Your task to perform on an android device: Clear the cart on walmart.com. Image 0: 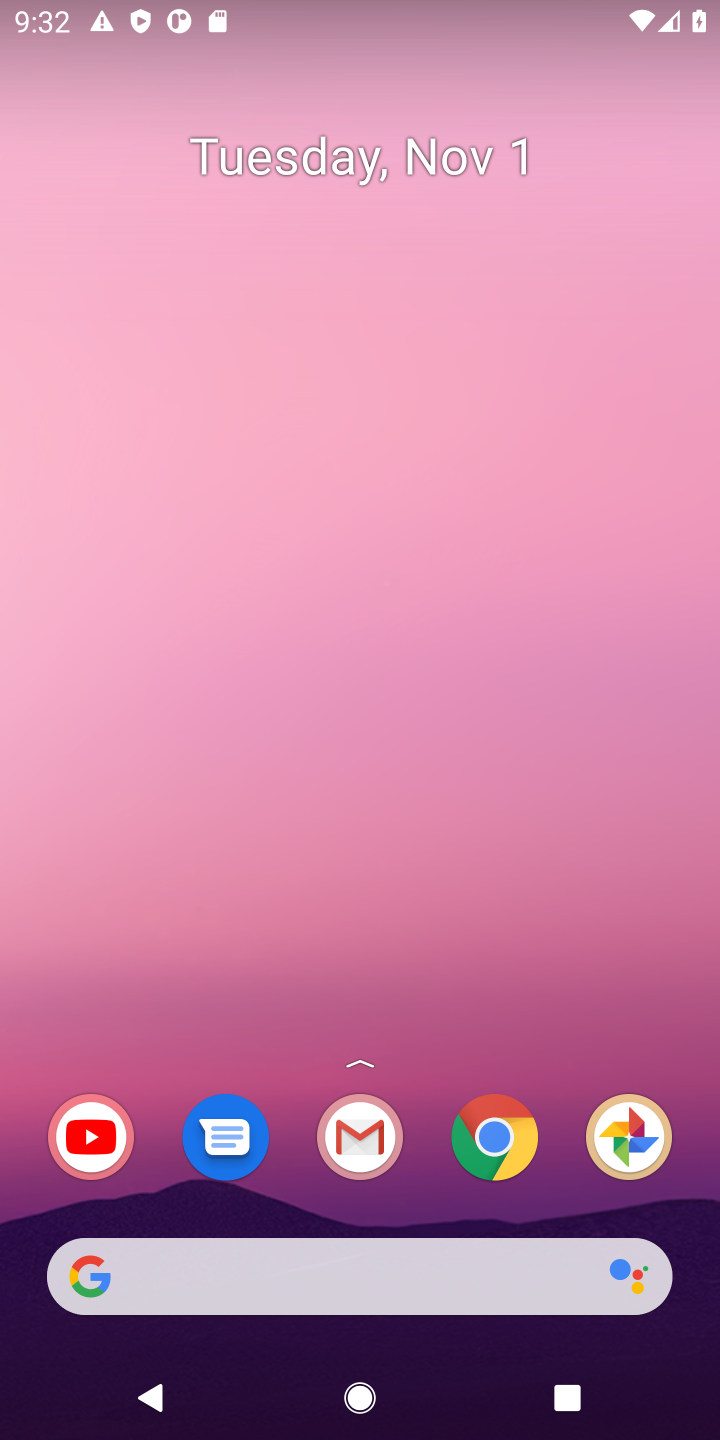
Step 0: click (476, 1121)
Your task to perform on an android device: Clear the cart on walmart.com. Image 1: 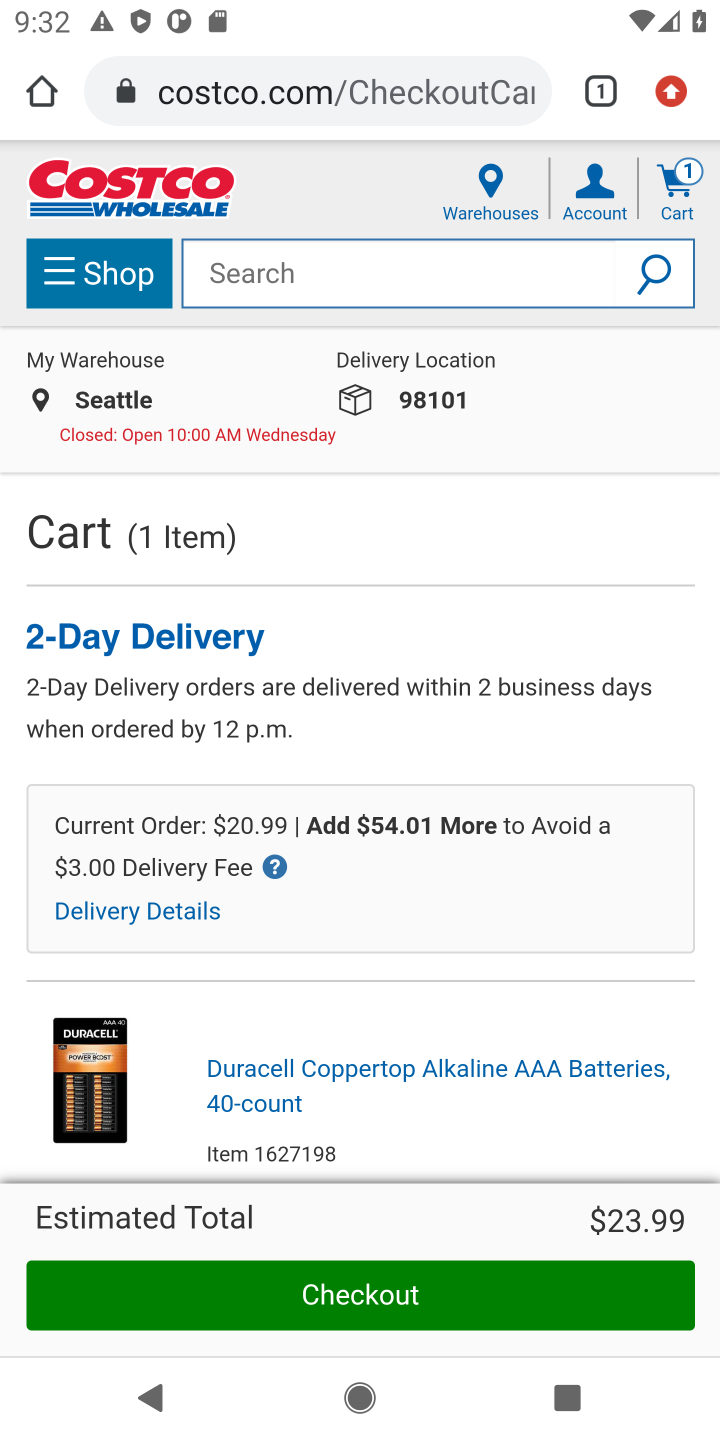
Step 1: click (416, 96)
Your task to perform on an android device: Clear the cart on walmart.com. Image 2: 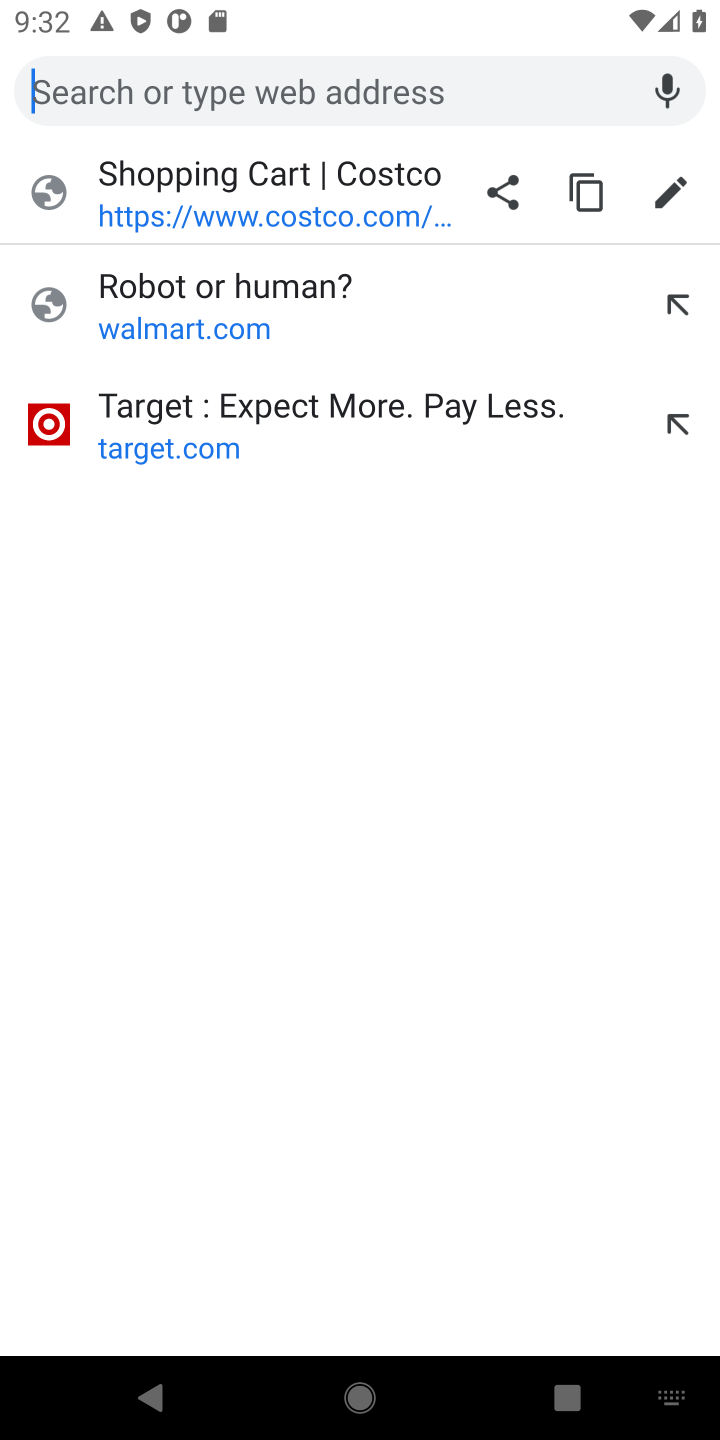
Step 2: type "walmart.com"
Your task to perform on an android device: Clear the cart on walmart.com. Image 3: 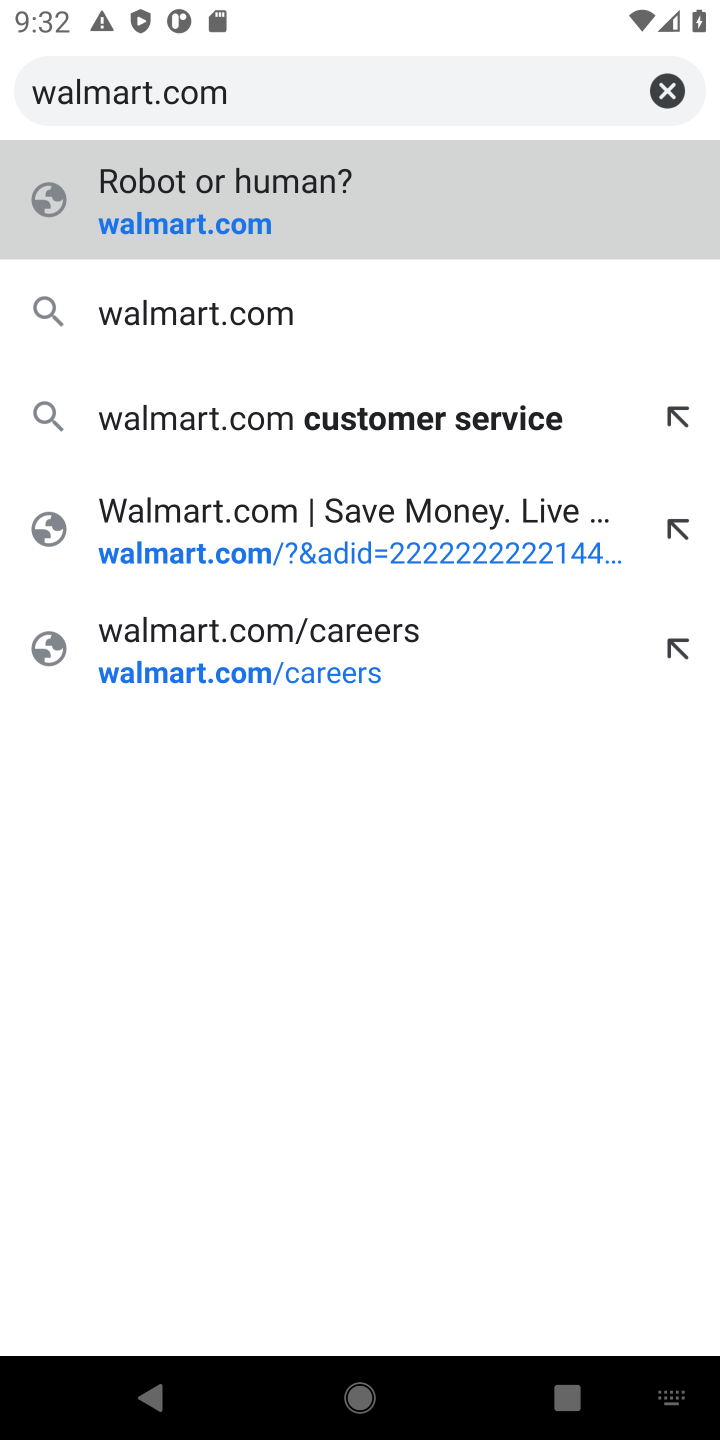
Step 3: press enter
Your task to perform on an android device: Clear the cart on walmart.com. Image 4: 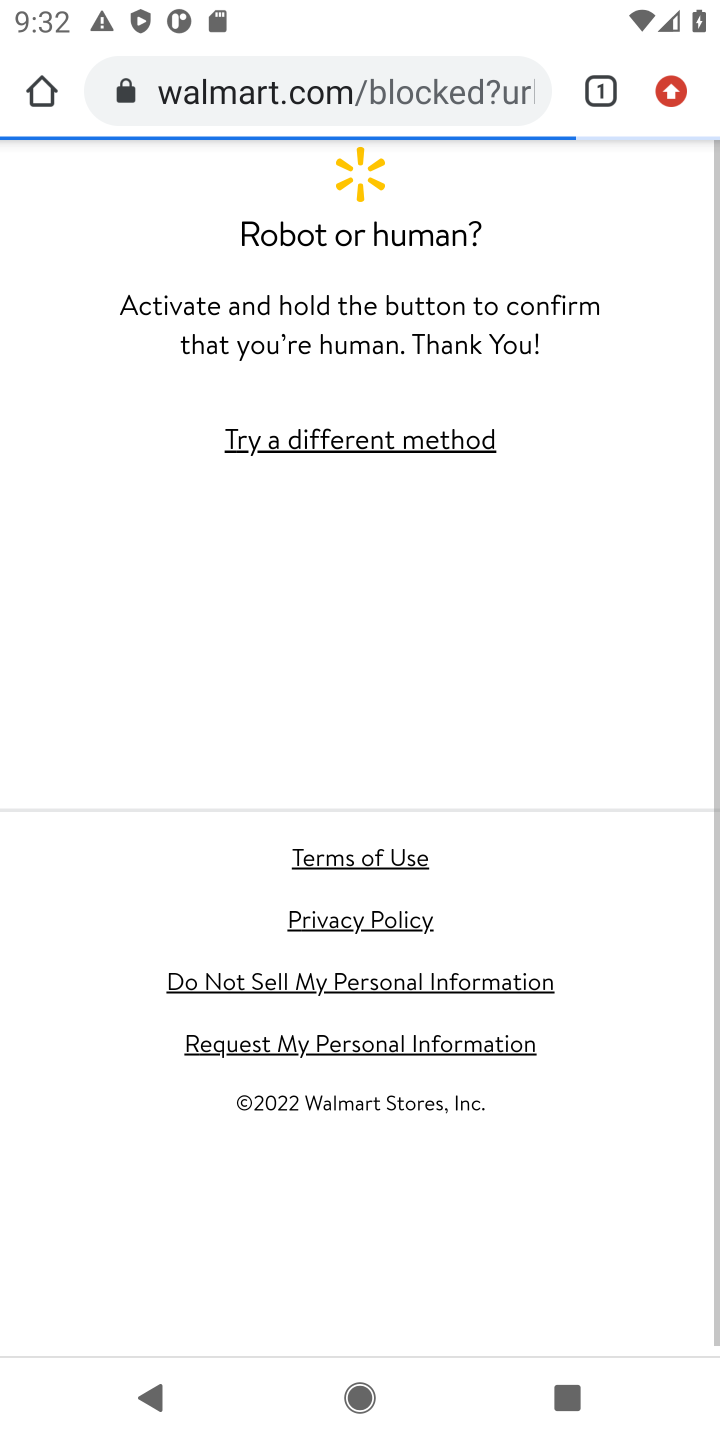
Step 4: click (399, 339)
Your task to perform on an android device: Clear the cart on walmart.com. Image 5: 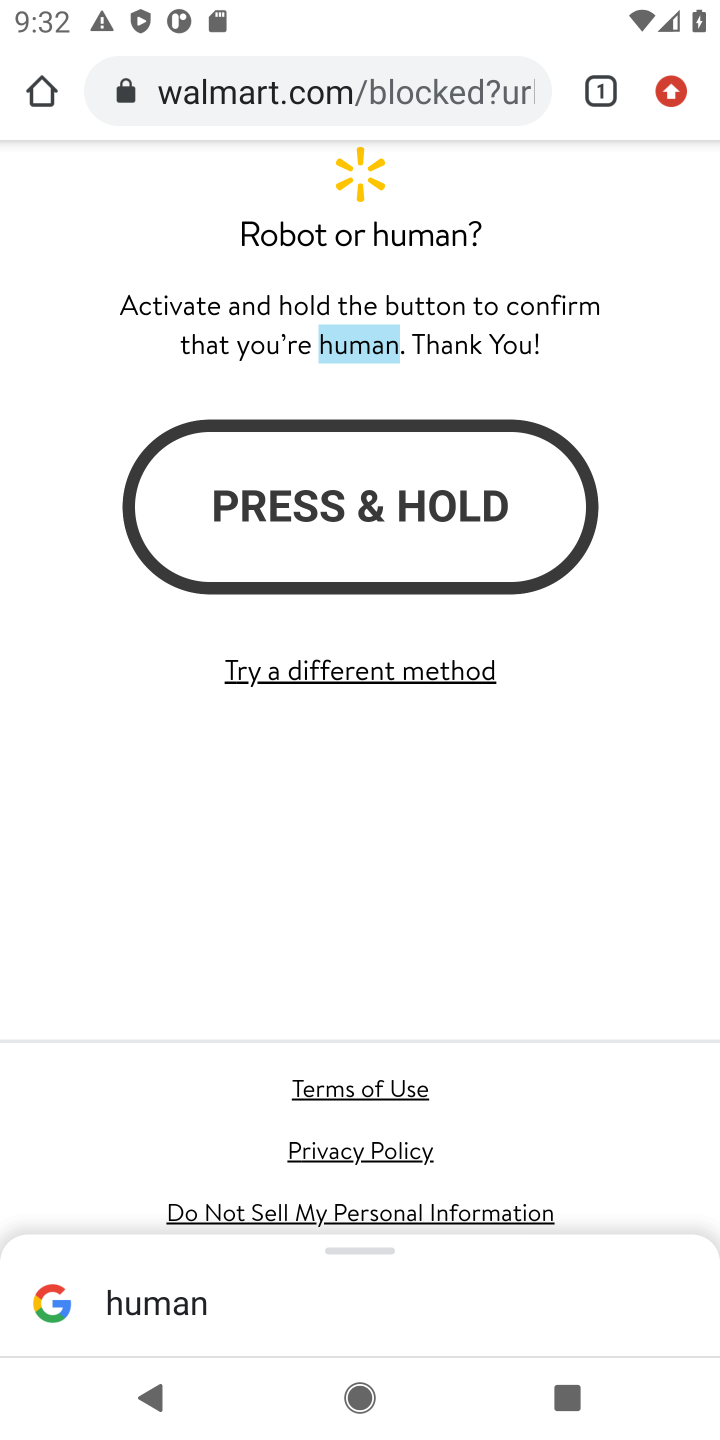
Step 5: click (351, 82)
Your task to perform on an android device: Clear the cart on walmart.com. Image 6: 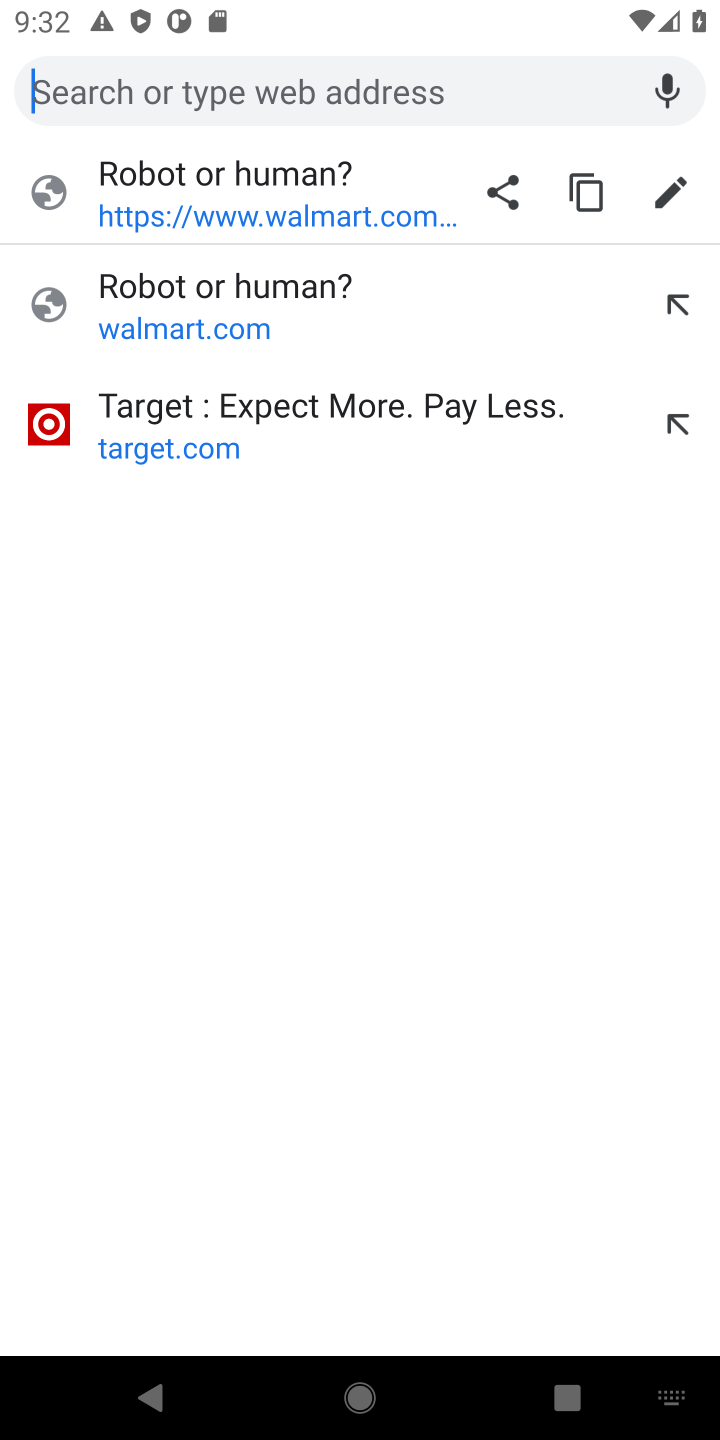
Step 6: type "walmart.com"
Your task to perform on an android device: Clear the cart on walmart.com. Image 7: 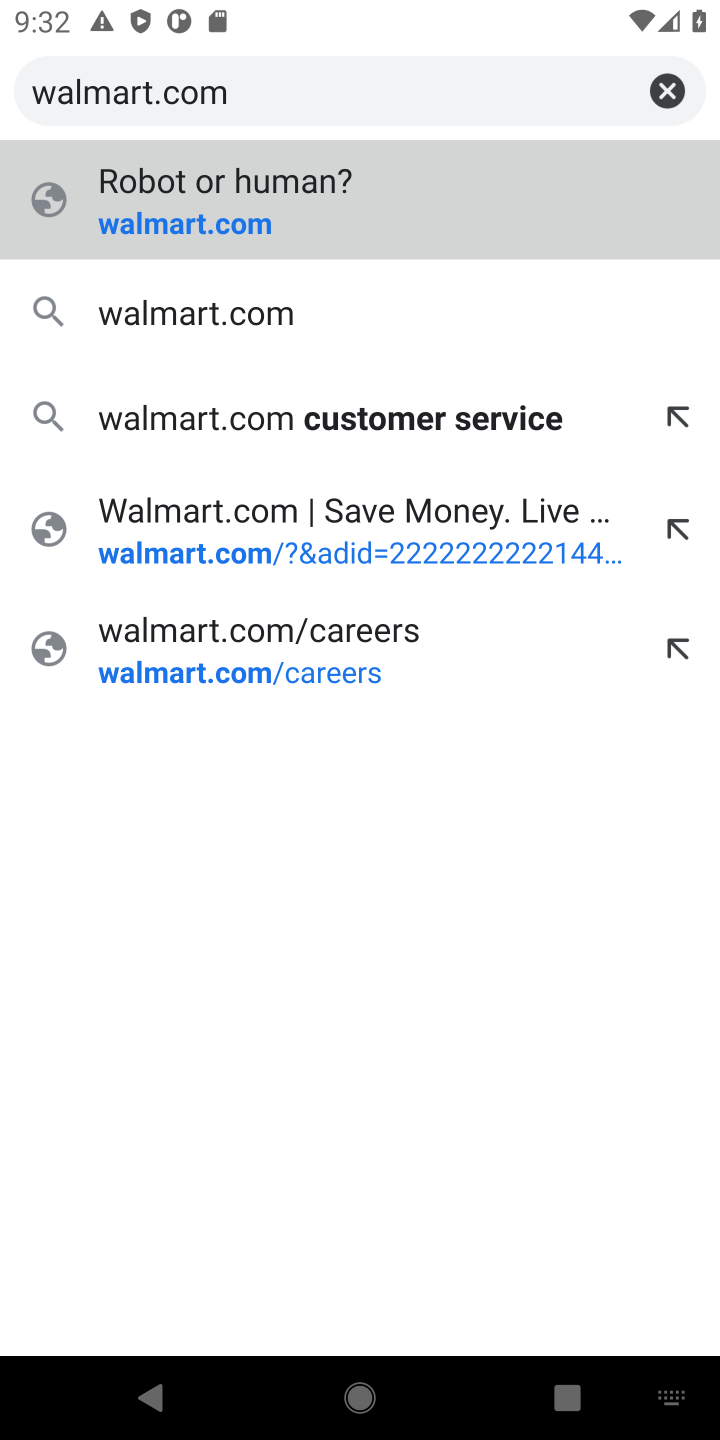
Step 7: click (241, 305)
Your task to perform on an android device: Clear the cart on walmart.com. Image 8: 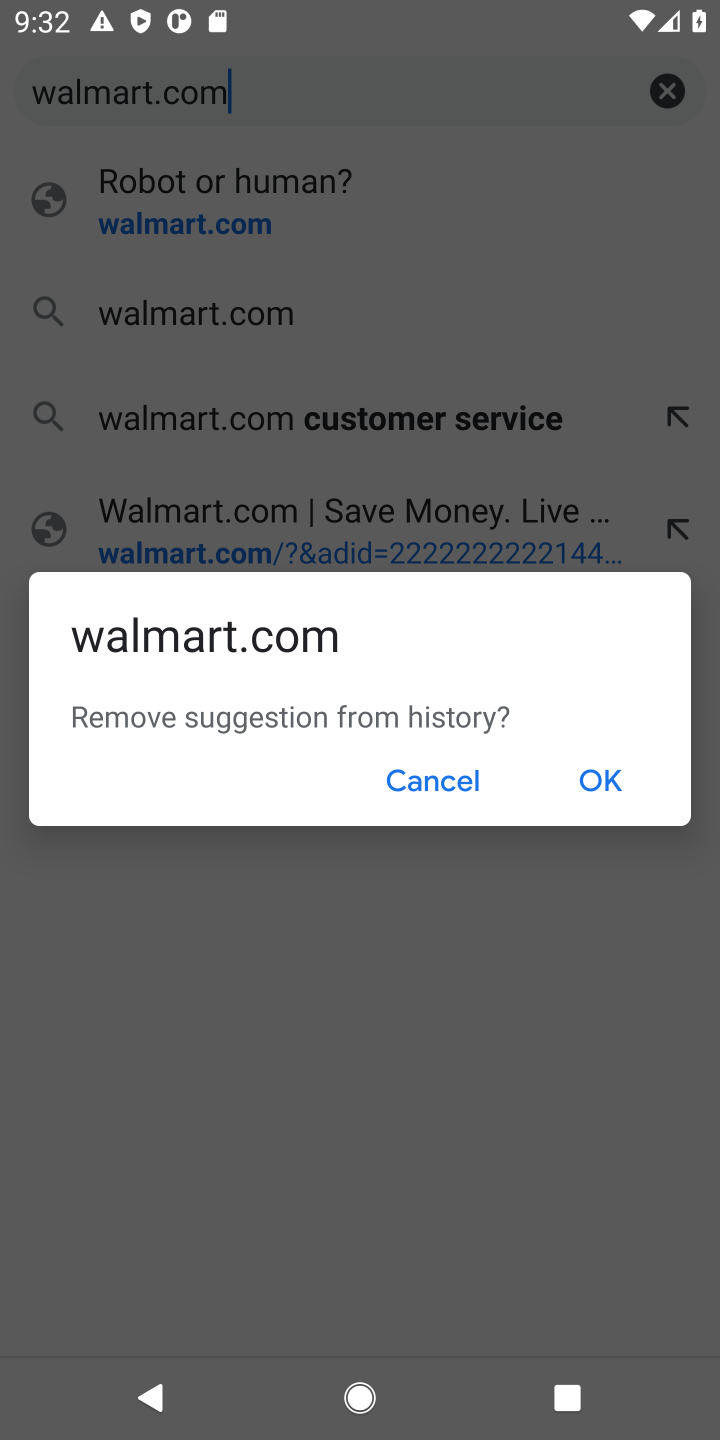
Step 8: click (599, 783)
Your task to perform on an android device: Clear the cart on walmart.com. Image 9: 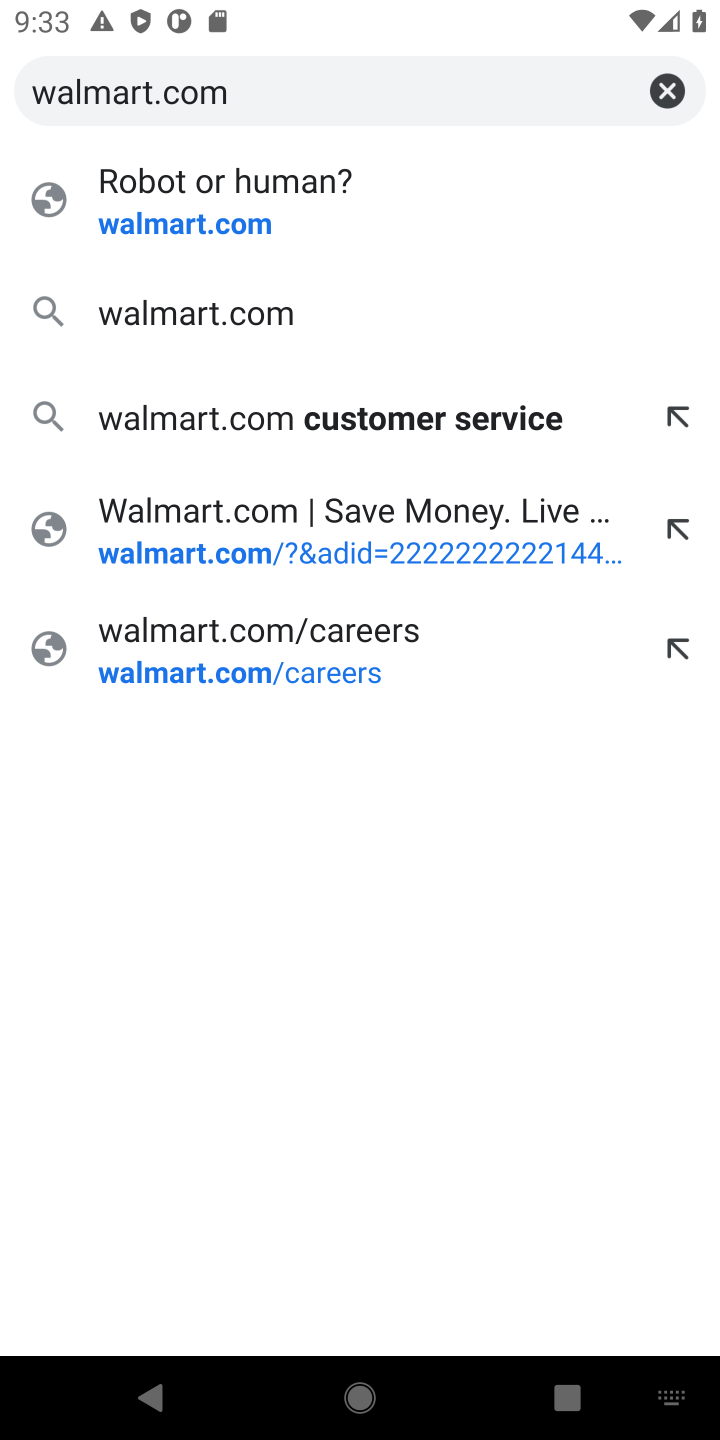
Step 9: click (228, 311)
Your task to perform on an android device: Clear the cart on walmart.com. Image 10: 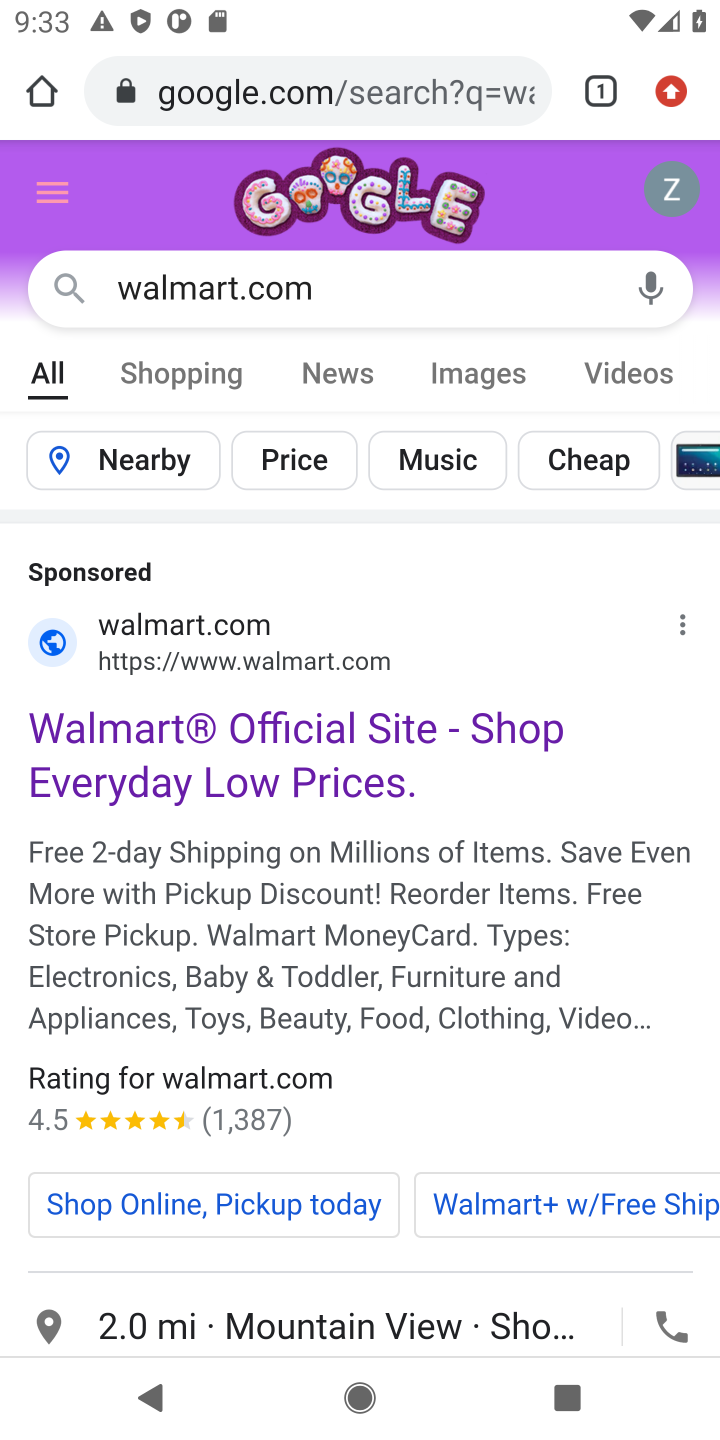
Step 10: drag from (323, 932) to (303, 328)
Your task to perform on an android device: Clear the cart on walmart.com. Image 11: 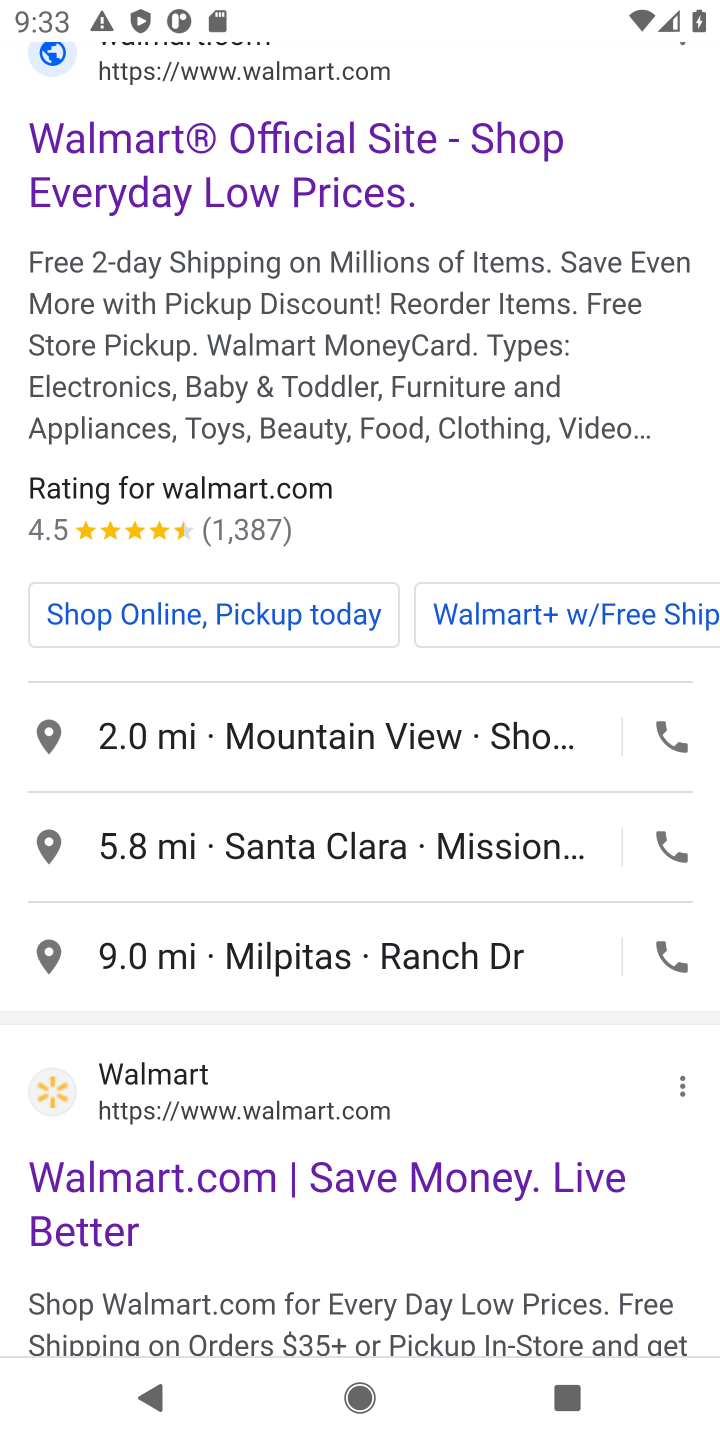
Step 11: click (201, 1113)
Your task to perform on an android device: Clear the cart on walmart.com. Image 12: 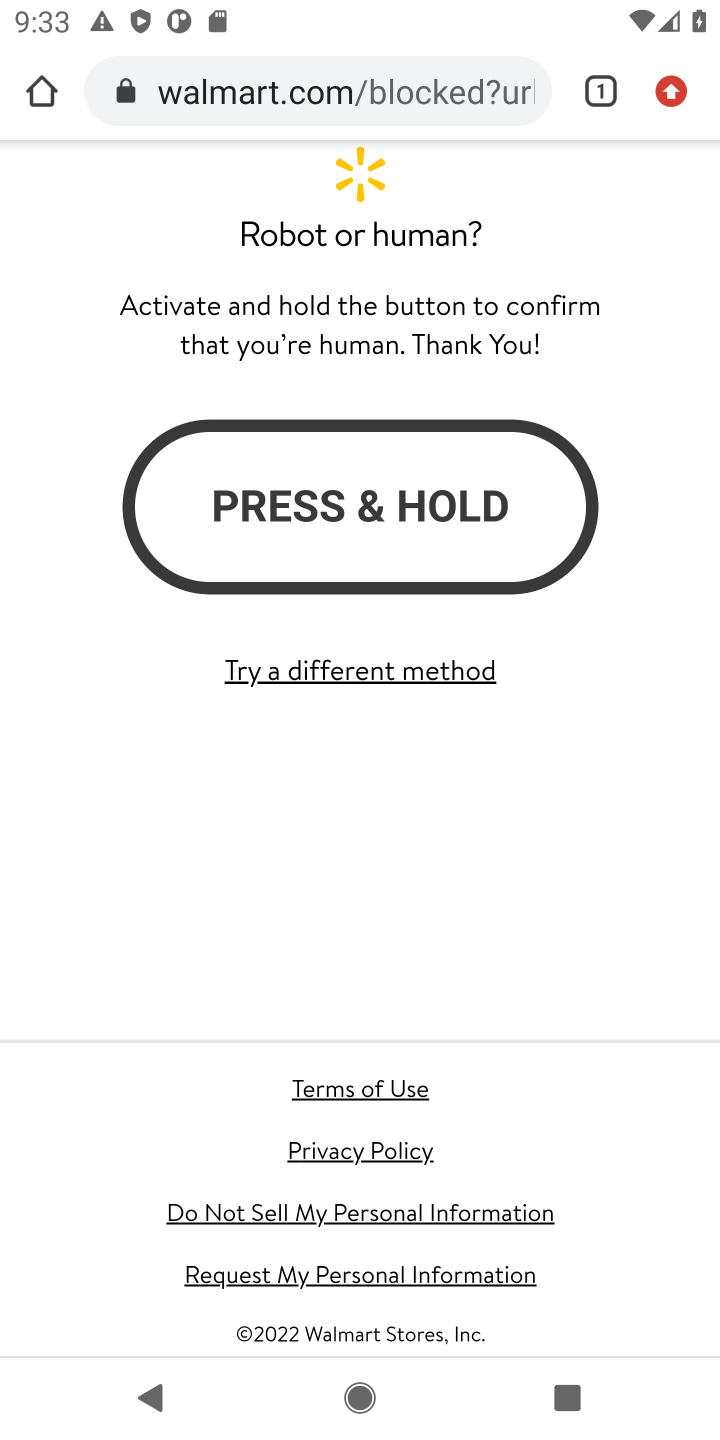
Step 12: press back button
Your task to perform on an android device: Clear the cart on walmart.com. Image 13: 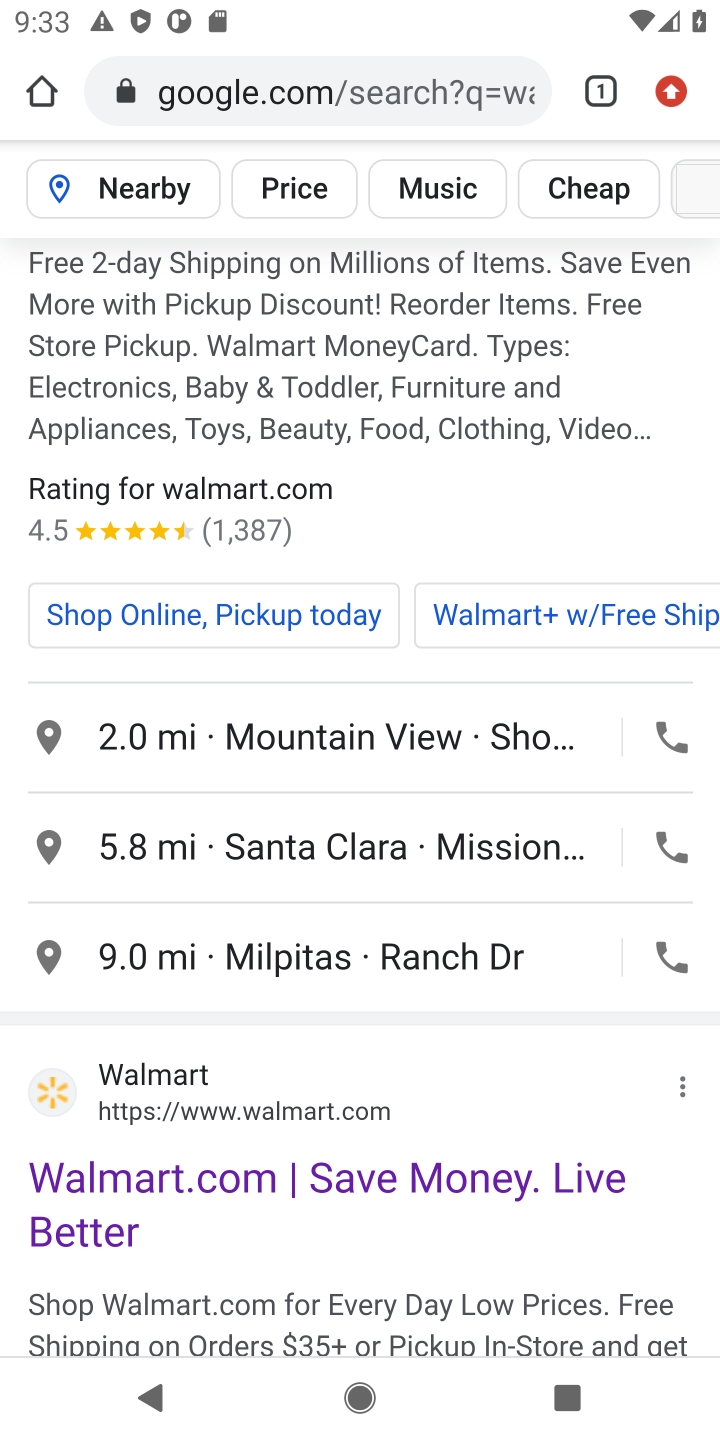
Step 13: drag from (340, 1085) to (279, 270)
Your task to perform on an android device: Clear the cart on walmart.com. Image 14: 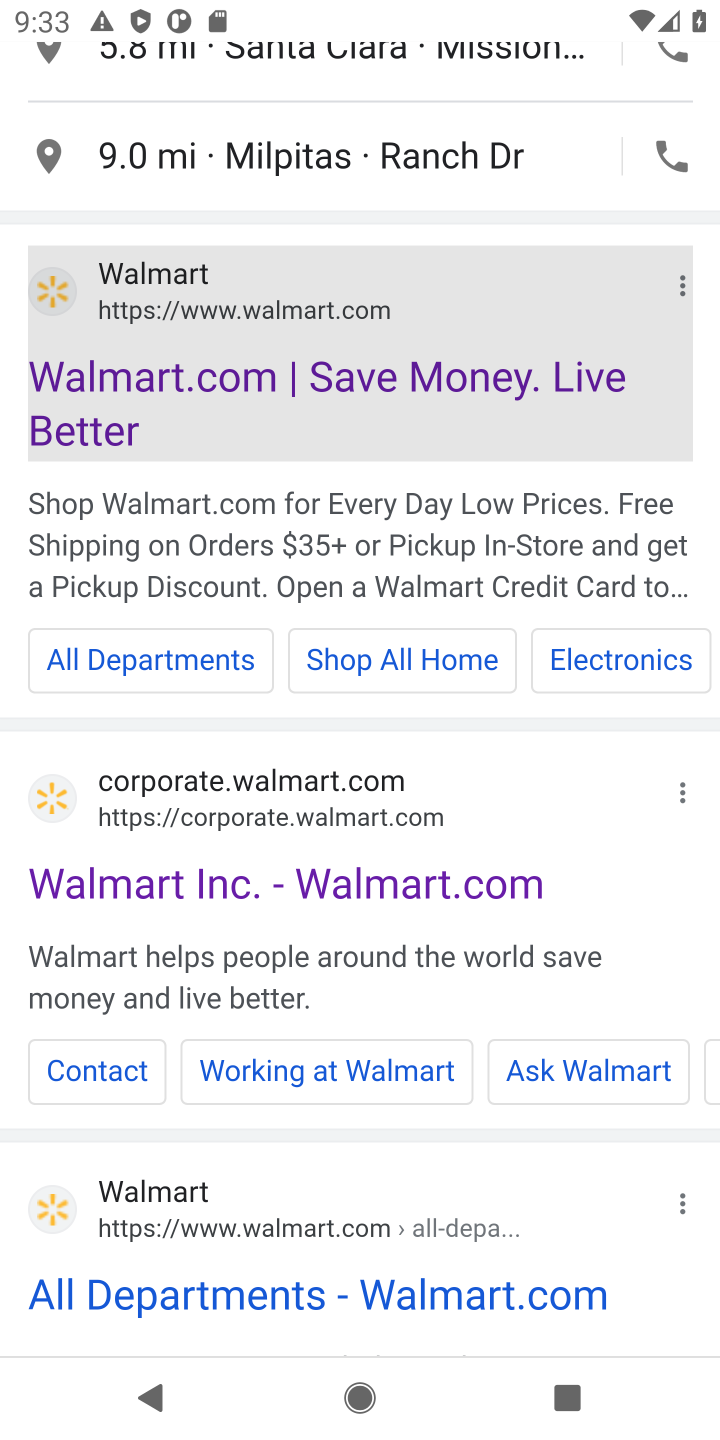
Step 14: drag from (430, 999) to (535, 383)
Your task to perform on an android device: Clear the cart on walmart.com. Image 15: 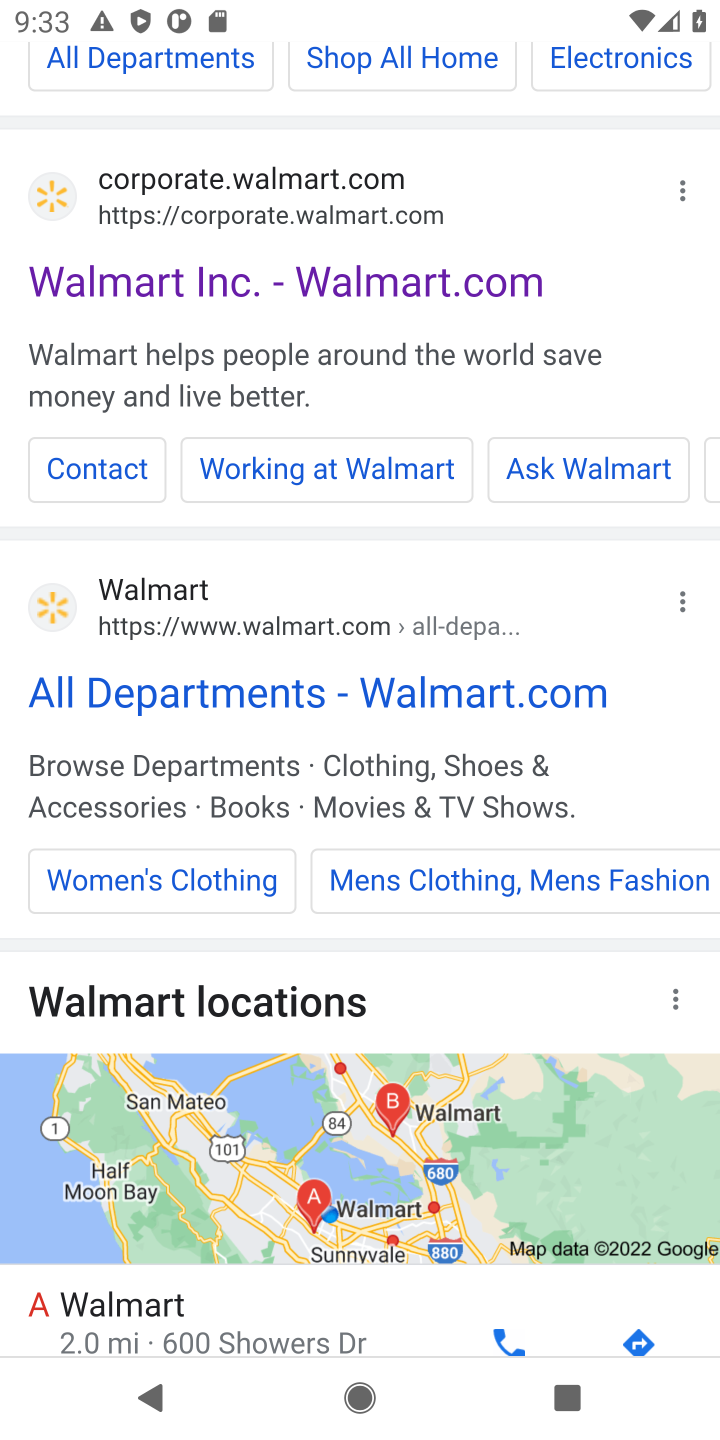
Step 15: click (203, 603)
Your task to perform on an android device: Clear the cart on walmart.com. Image 16: 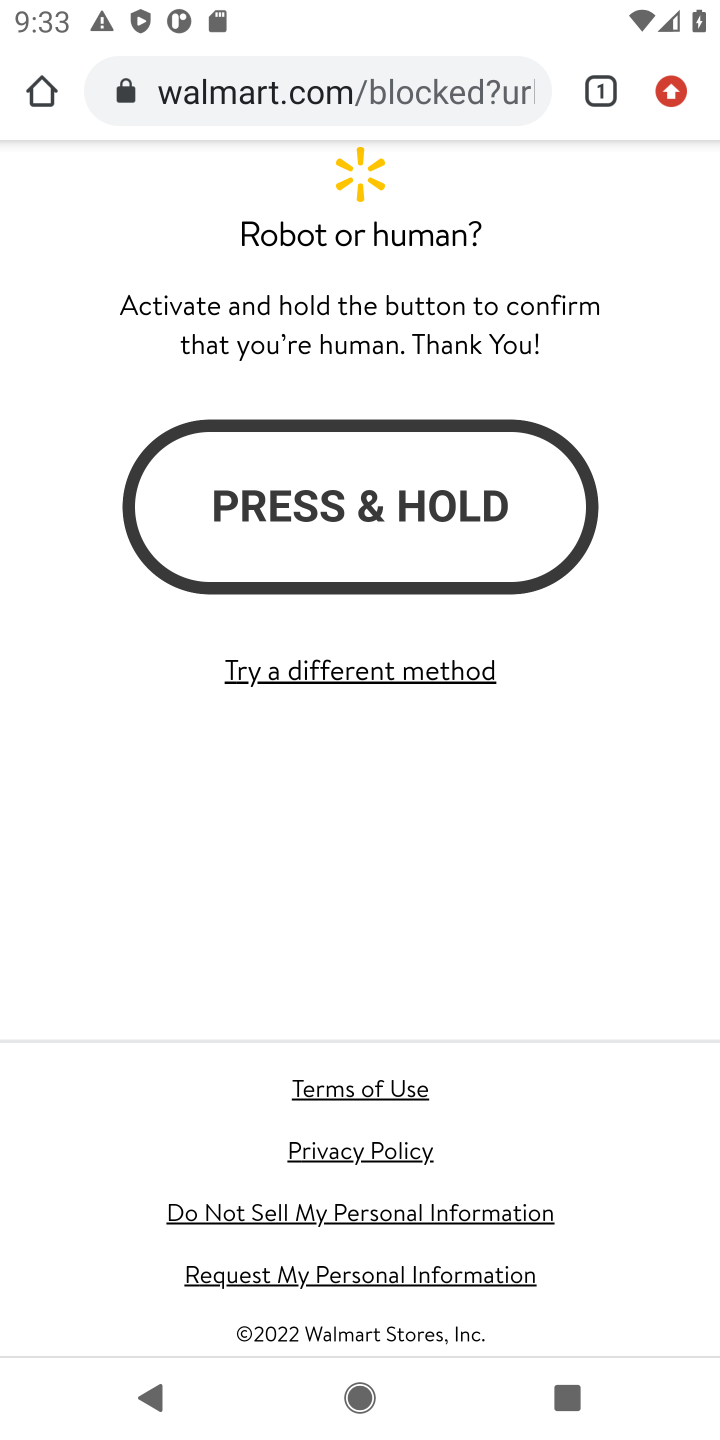
Step 16: task complete